Your task to perform on an android device: Open Chrome and go to settings Image 0: 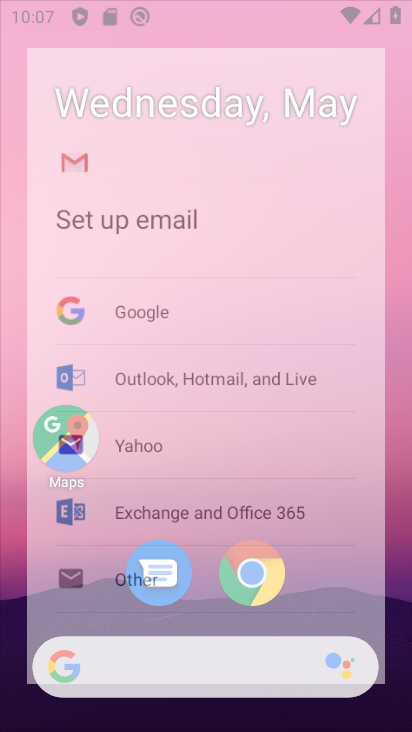
Step 0: drag from (293, 619) to (26, 68)
Your task to perform on an android device: Open Chrome and go to settings Image 1: 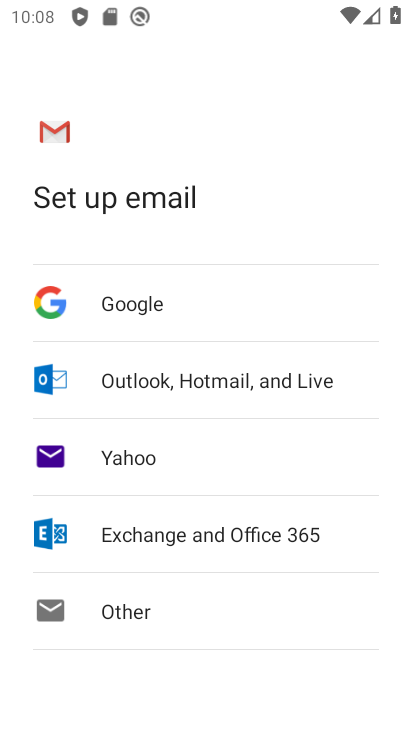
Step 1: press back button
Your task to perform on an android device: Open Chrome and go to settings Image 2: 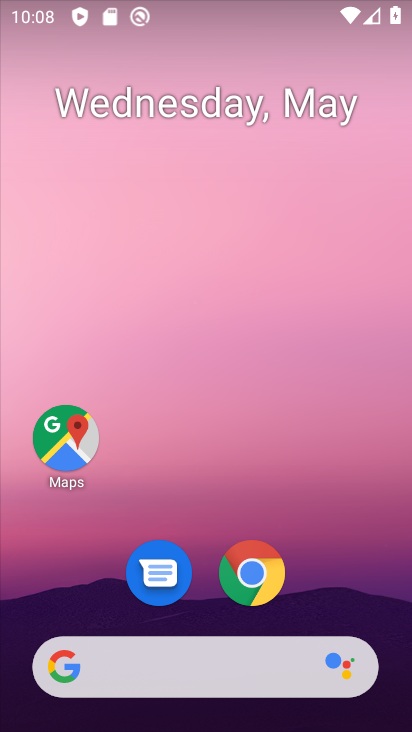
Step 2: click (201, 69)
Your task to perform on an android device: Open Chrome and go to settings Image 3: 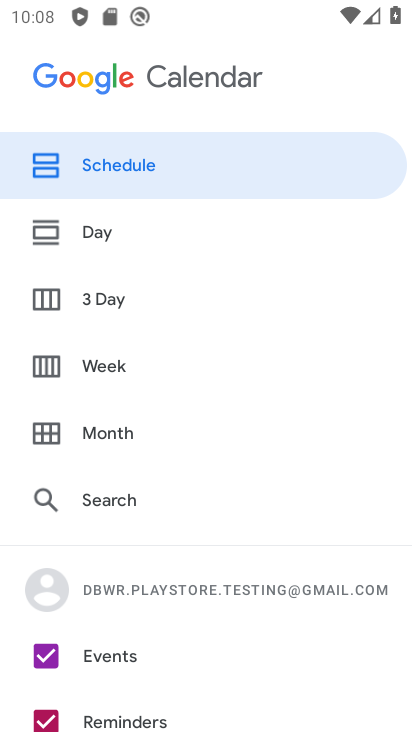
Step 3: press back button
Your task to perform on an android device: Open Chrome and go to settings Image 4: 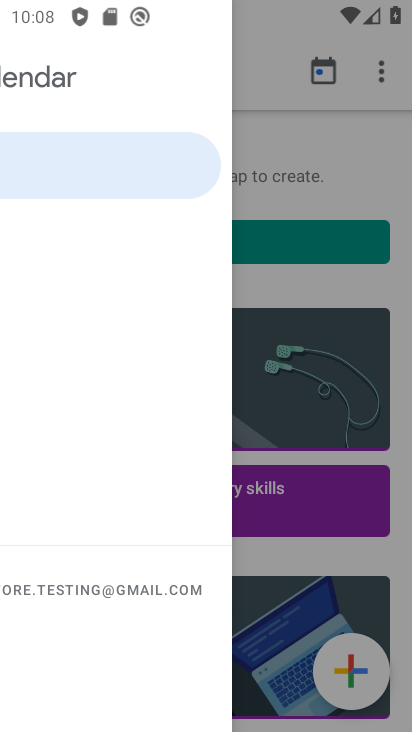
Step 4: press back button
Your task to perform on an android device: Open Chrome and go to settings Image 5: 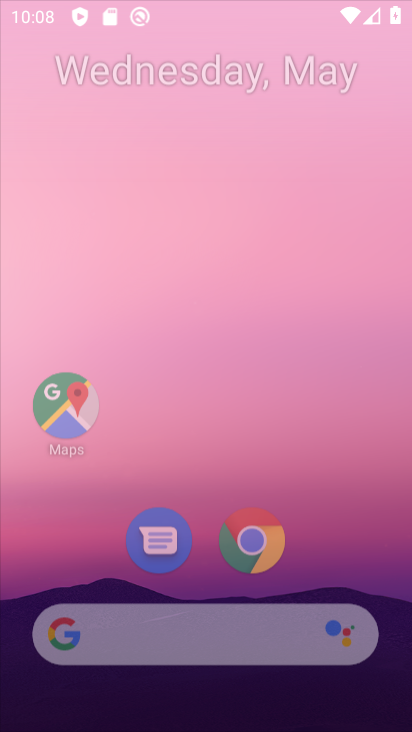
Step 5: press back button
Your task to perform on an android device: Open Chrome and go to settings Image 6: 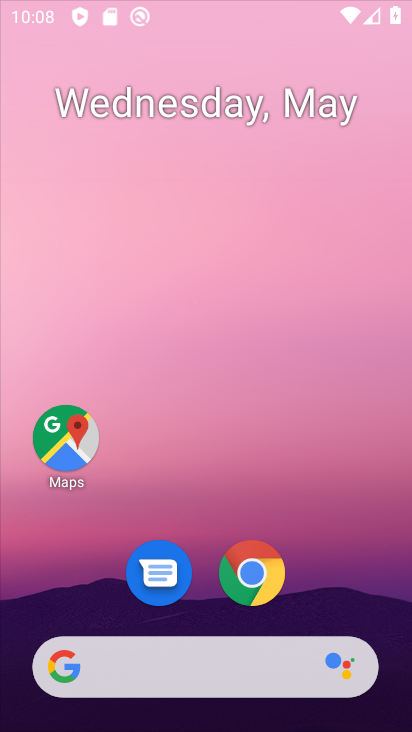
Step 6: press back button
Your task to perform on an android device: Open Chrome and go to settings Image 7: 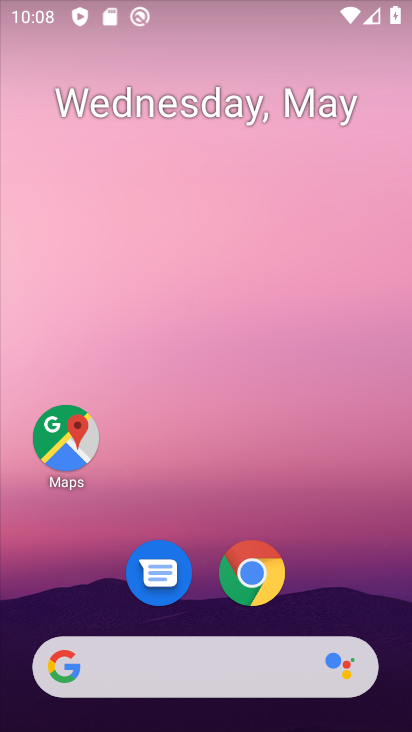
Step 7: press back button
Your task to perform on an android device: Open Chrome and go to settings Image 8: 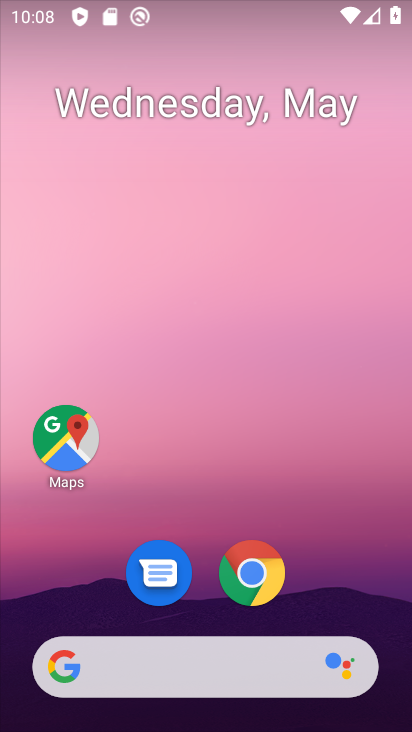
Step 8: drag from (293, 660) to (135, 88)
Your task to perform on an android device: Open Chrome and go to settings Image 9: 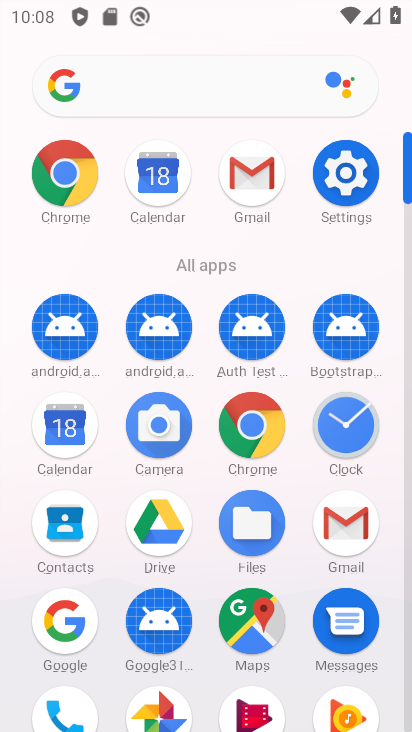
Step 9: drag from (290, 695) to (120, 0)
Your task to perform on an android device: Open Chrome and go to settings Image 10: 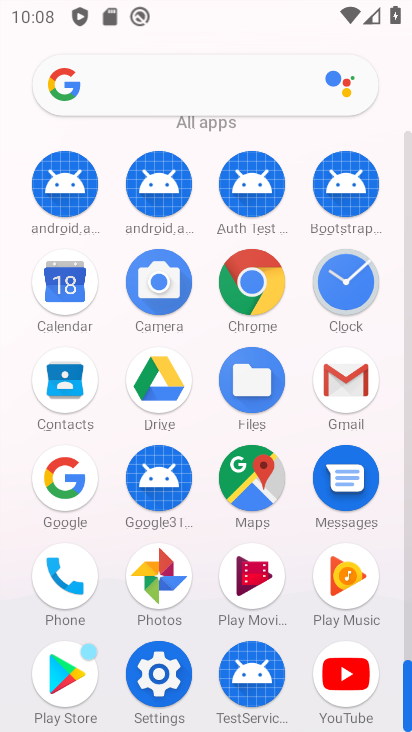
Step 10: click (246, 295)
Your task to perform on an android device: Open Chrome and go to settings Image 11: 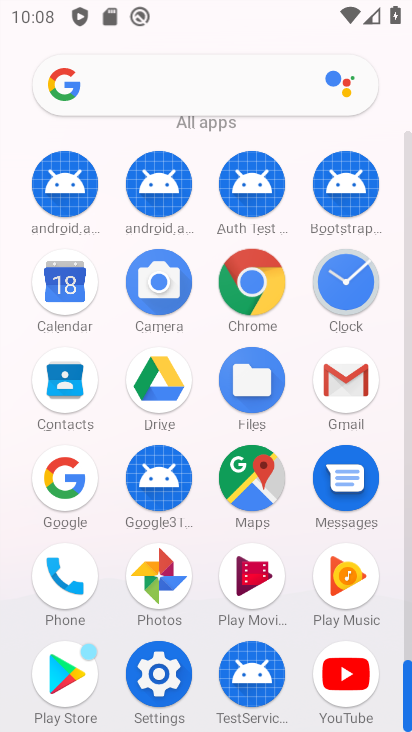
Step 11: click (248, 293)
Your task to perform on an android device: Open Chrome and go to settings Image 12: 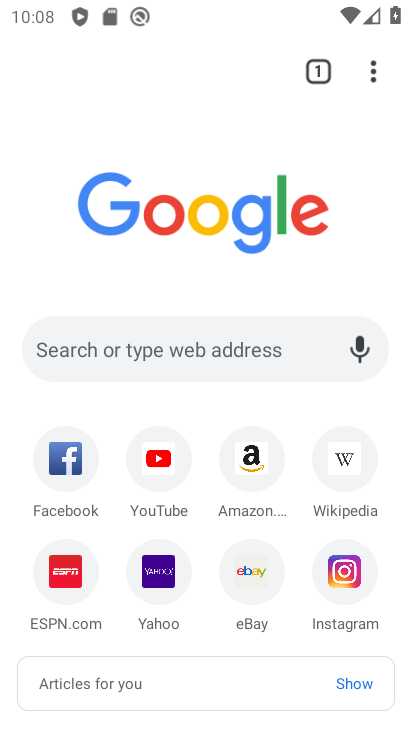
Step 12: drag from (367, 79) to (99, 599)
Your task to perform on an android device: Open Chrome and go to settings Image 13: 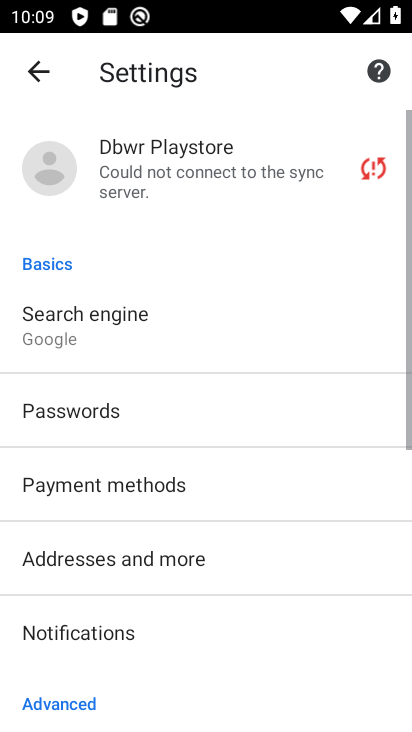
Step 13: click (107, 590)
Your task to perform on an android device: Open Chrome and go to settings Image 14: 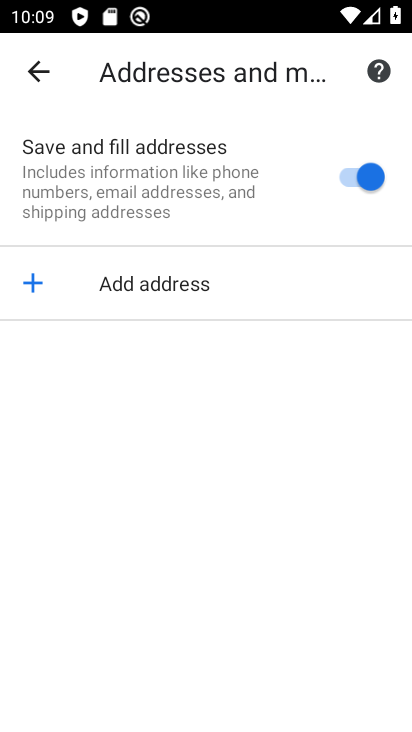
Step 14: click (34, 71)
Your task to perform on an android device: Open Chrome and go to settings Image 15: 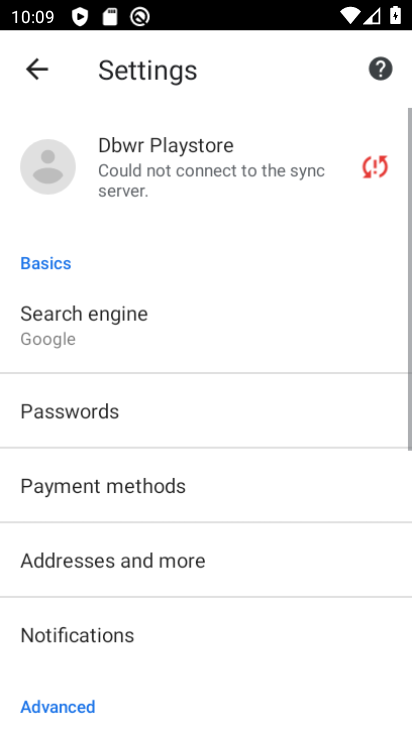
Step 15: click (29, 68)
Your task to perform on an android device: Open Chrome and go to settings Image 16: 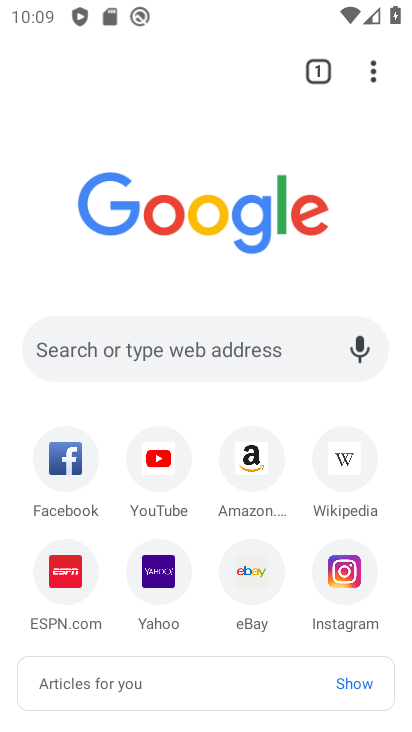
Step 16: click (33, 69)
Your task to perform on an android device: Open Chrome and go to settings Image 17: 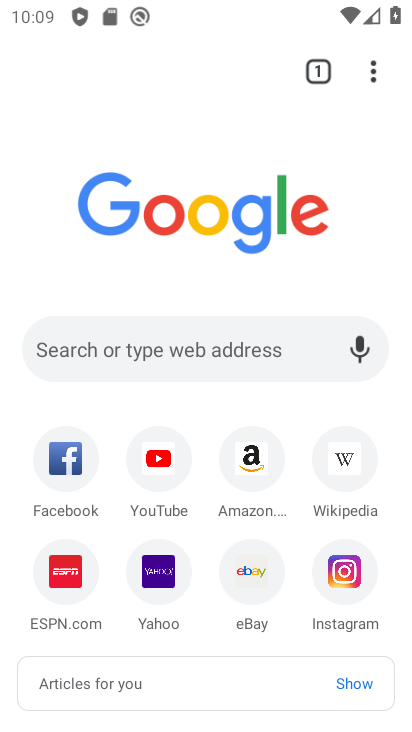
Step 17: click (36, 79)
Your task to perform on an android device: Open Chrome and go to settings Image 18: 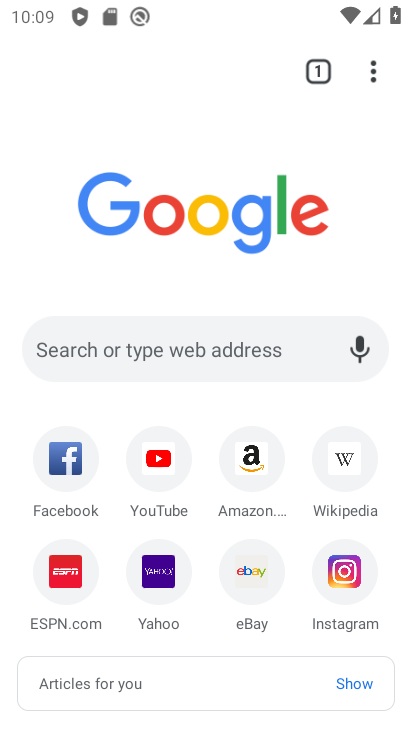
Step 18: click (27, 74)
Your task to perform on an android device: Open Chrome and go to settings Image 19: 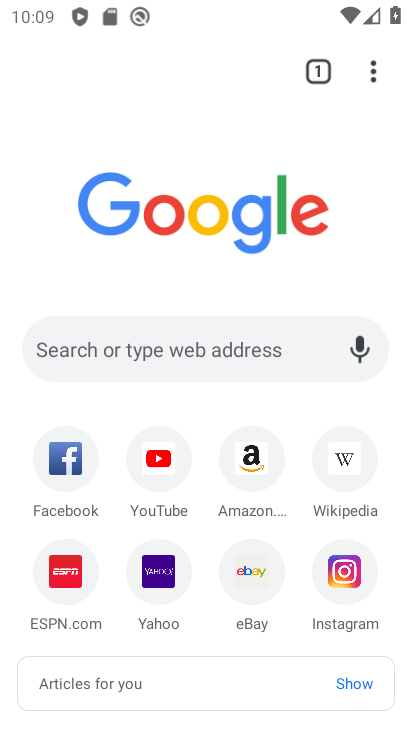
Step 19: press back button
Your task to perform on an android device: Open Chrome and go to settings Image 20: 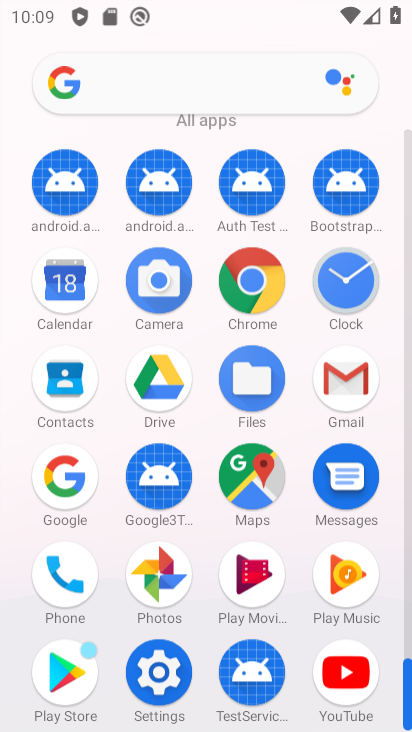
Step 20: press home button
Your task to perform on an android device: Open Chrome and go to settings Image 21: 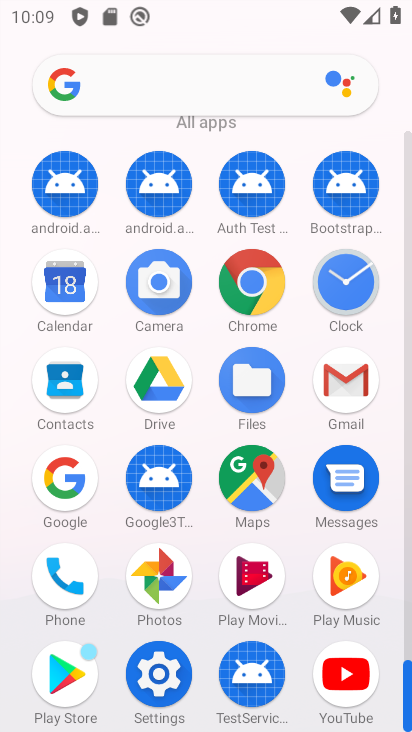
Step 21: press home button
Your task to perform on an android device: Open Chrome and go to settings Image 22: 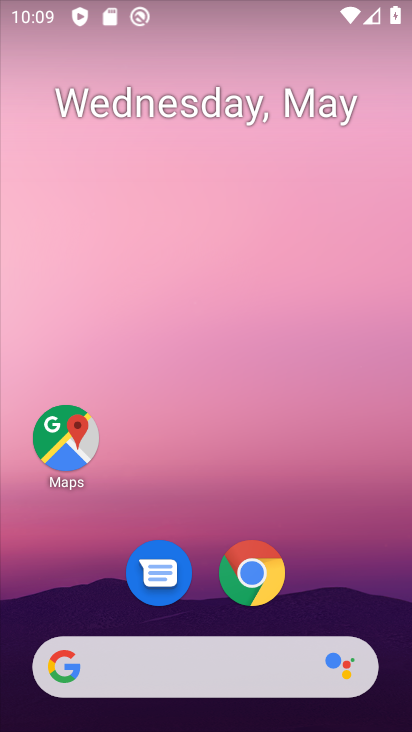
Step 22: press back button
Your task to perform on an android device: Open Chrome and go to settings Image 23: 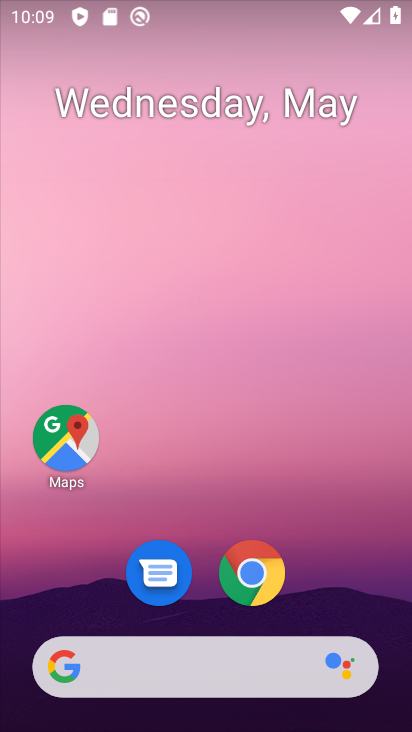
Step 23: drag from (250, 657) to (111, 21)
Your task to perform on an android device: Open Chrome and go to settings Image 24: 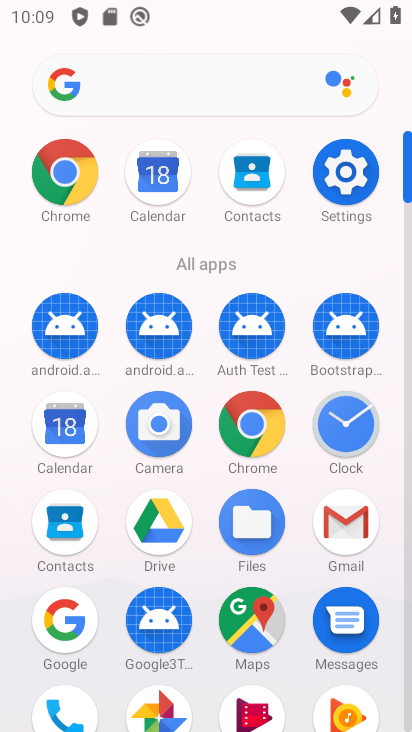
Step 24: click (68, 177)
Your task to perform on an android device: Open Chrome and go to settings Image 25: 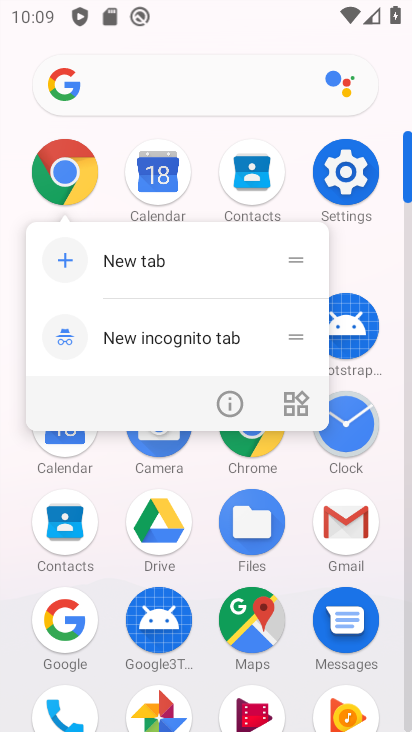
Step 25: click (69, 176)
Your task to perform on an android device: Open Chrome and go to settings Image 26: 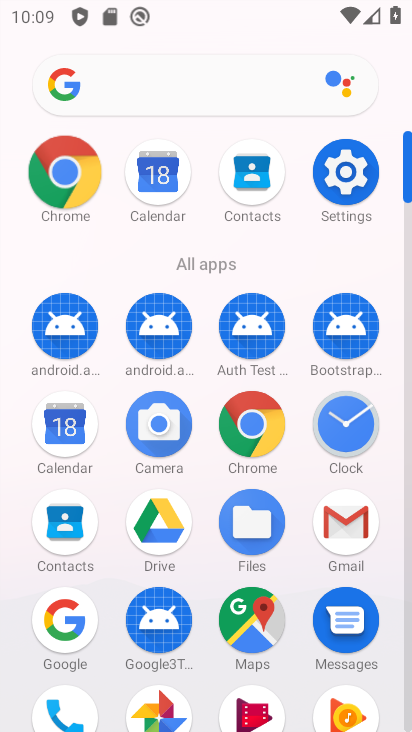
Step 26: click (80, 179)
Your task to perform on an android device: Open Chrome and go to settings Image 27: 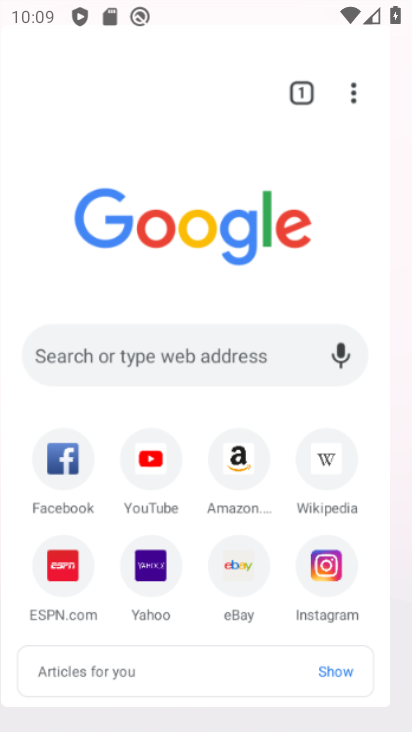
Step 27: click (71, 176)
Your task to perform on an android device: Open Chrome and go to settings Image 28: 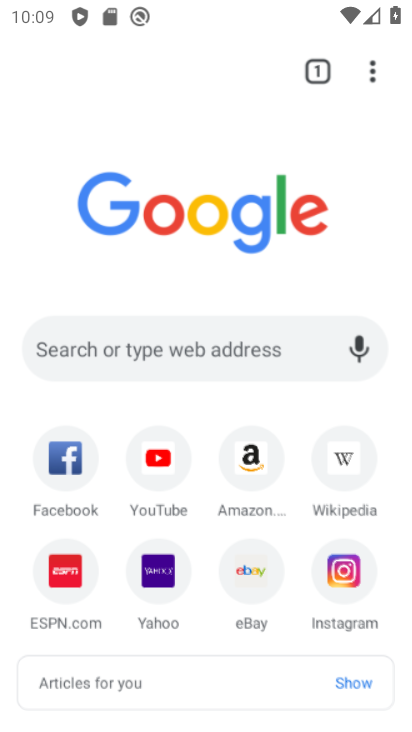
Step 28: click (43, 173)
Your task to perform on an android device: Open Chrome and go to settings Image 29: 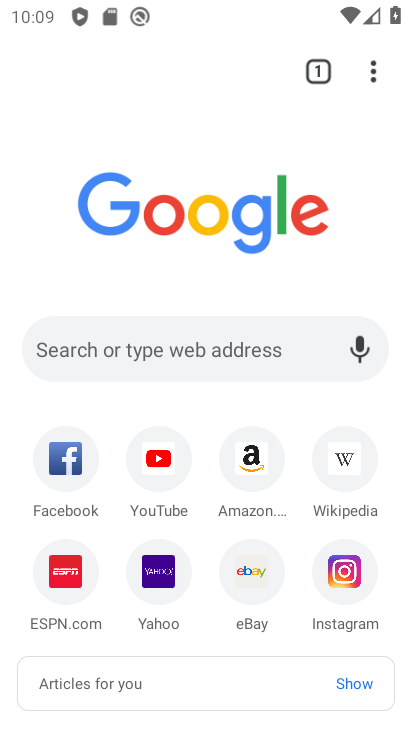
Step 29: click (59, 173)
Your task to perform on an android device: Open Chrome and go to settings Image 30: 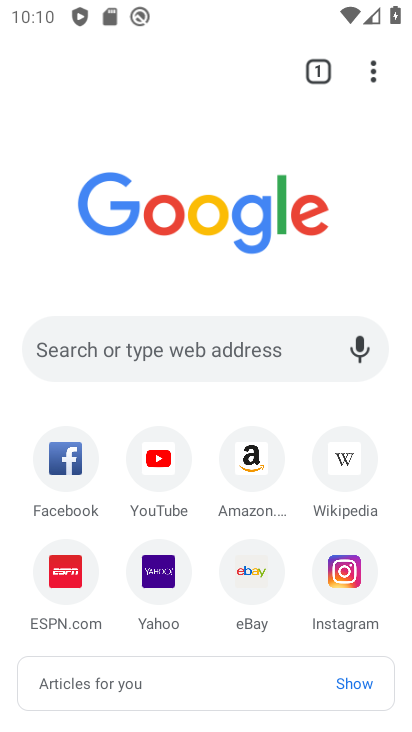
Step 30: drag from (370, 73) to (115, 601)
Your task to perform on an android device: Open Chrome and go to settings Image 31: 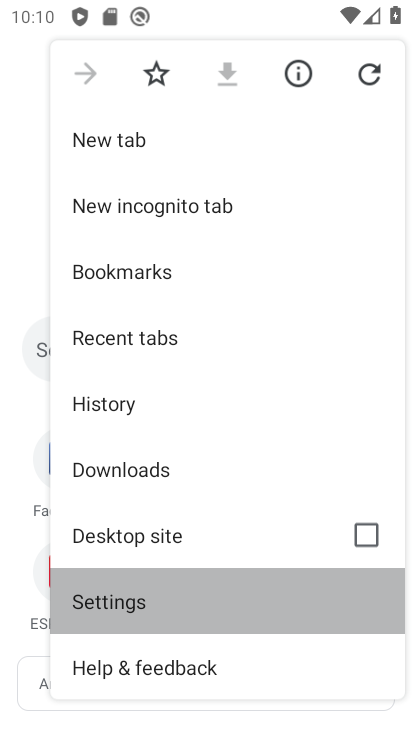
Step 31: click (113, 603)
Your task to perform on an android device: Open Chrome and go to settings Image 32: 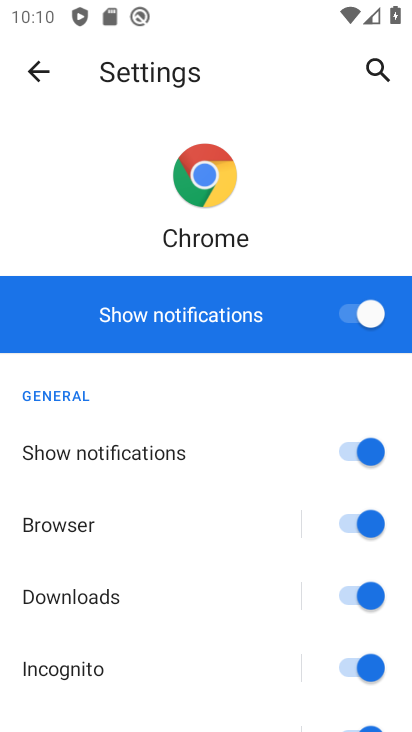
Step 32: click (32, 70)
Your task to perform on an android device: Open Chrome and go to settings Image 33: 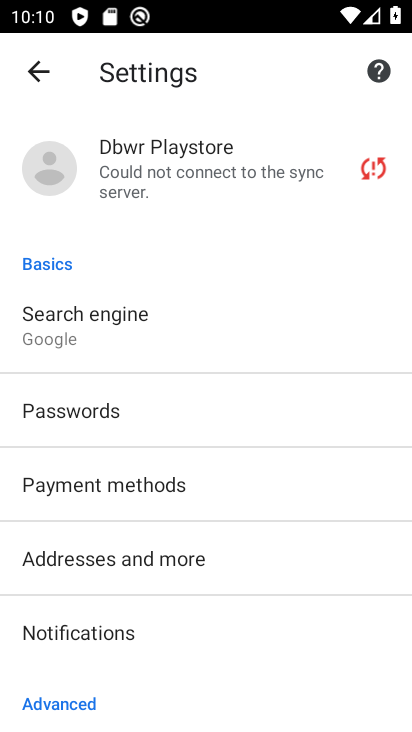
Step 33: task complete